Your task to perform on an android device: toggle javascript in the chrome app Image 0: 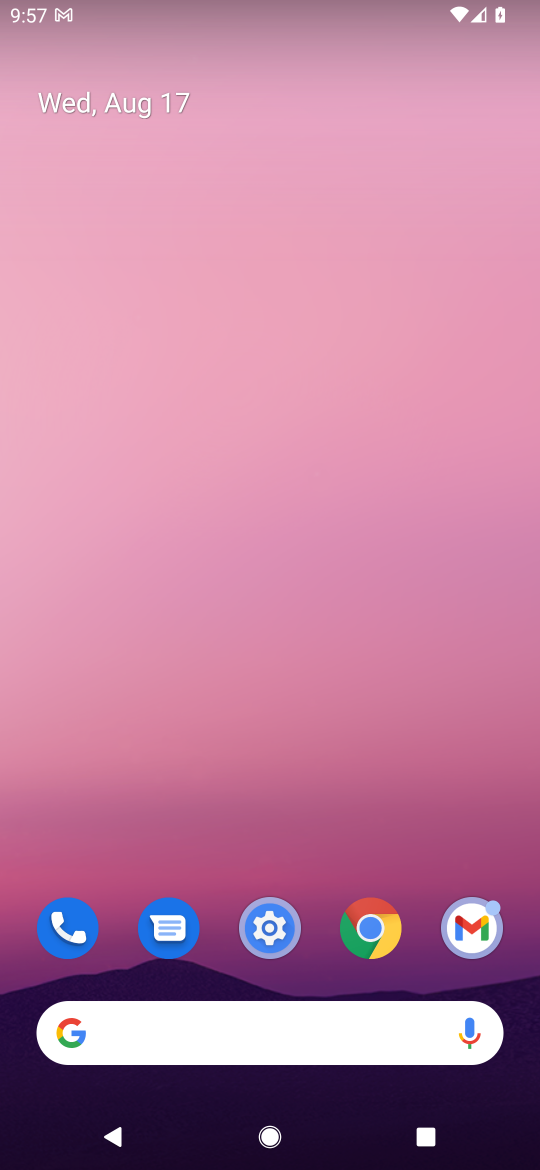
Step 0: click (371, 909)
Your task to perform on an android device: toggle javascript in the chrome app Image 1: 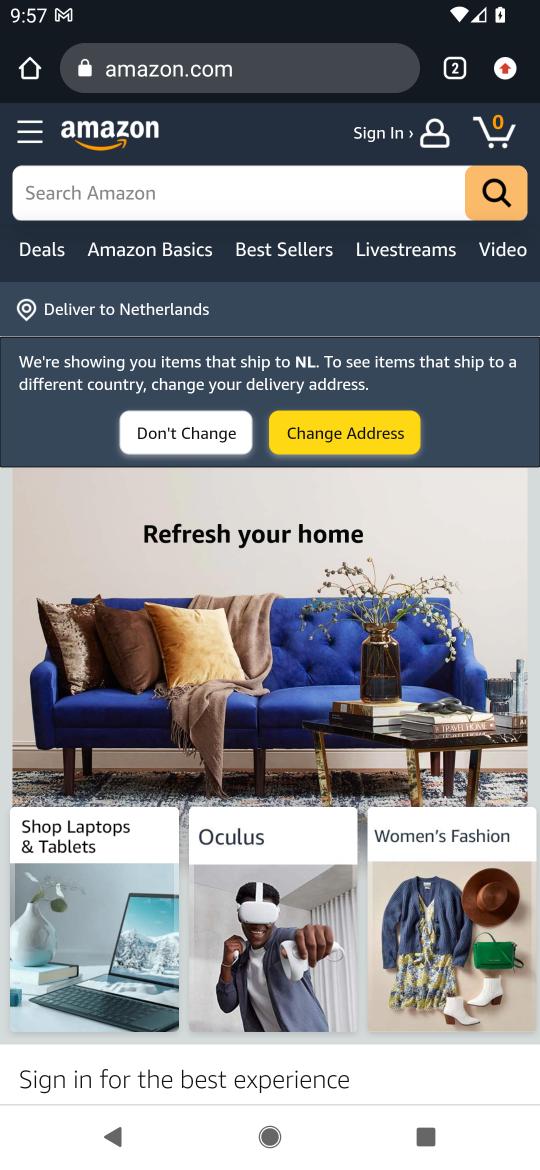
Step 1: click (511, 64)
Your task to perform on an android device: toggle javascript in the chrome app Image 2: 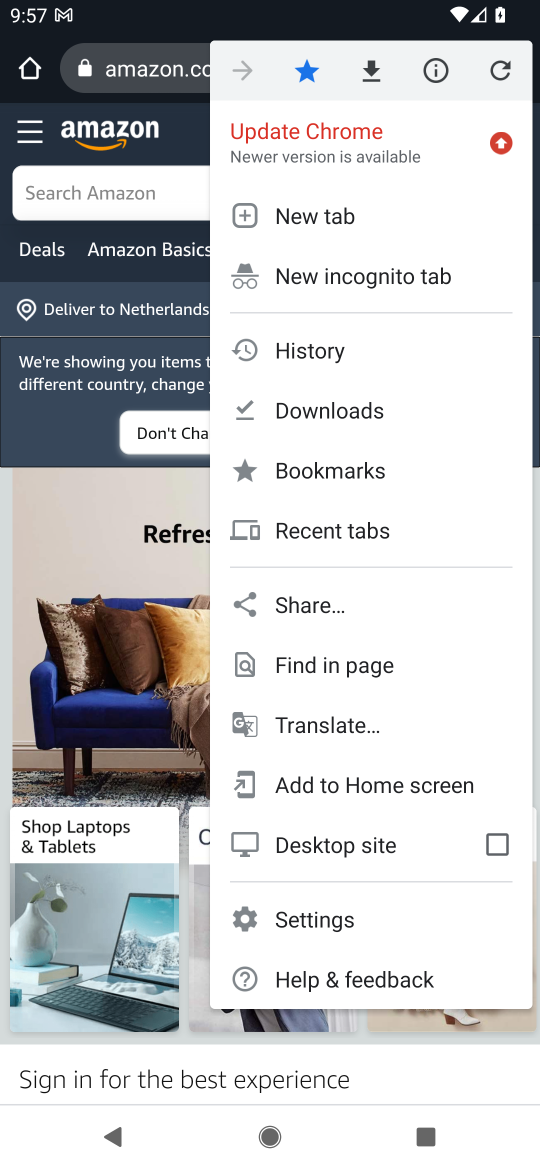
Step 2: click (307, 920)
Your task to perform on an android device: toggle javascript in the chrome app Image 3: 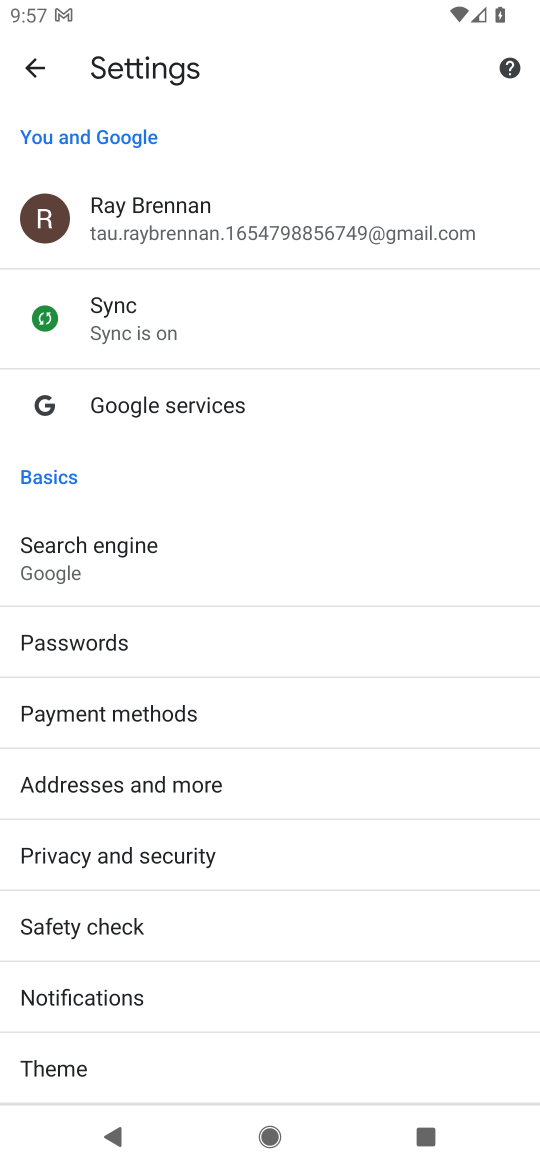
Step 3: drag from (253, 938) to (192, 518)
Your task to perform on an android device: toggle javascript in the chrome app Image 4: 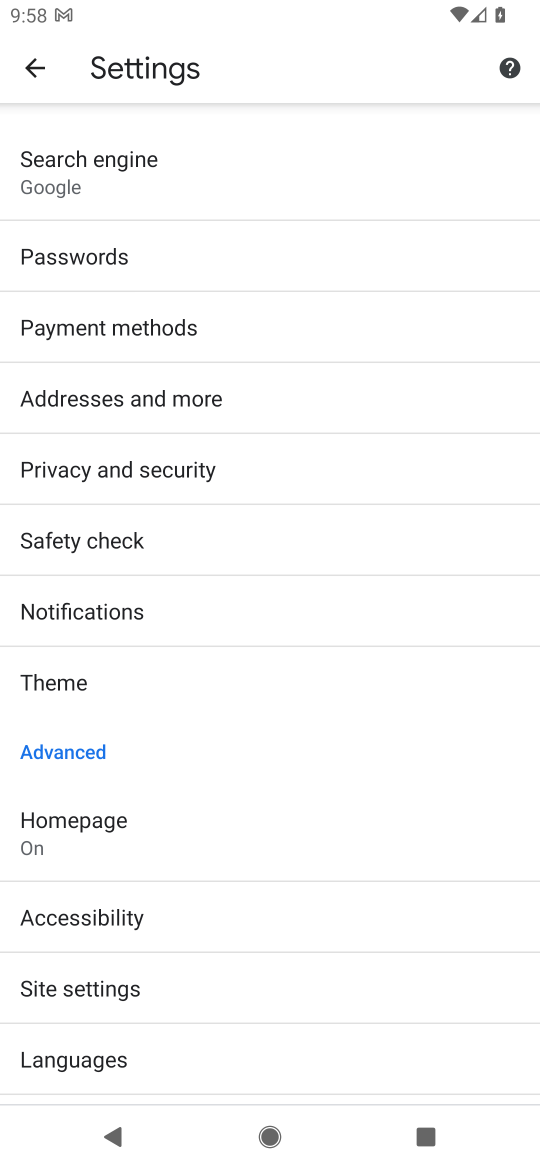
Step 4: click (125, 994)
Your task to perform on an android device: toggle javascript in the chrome app Image 5: 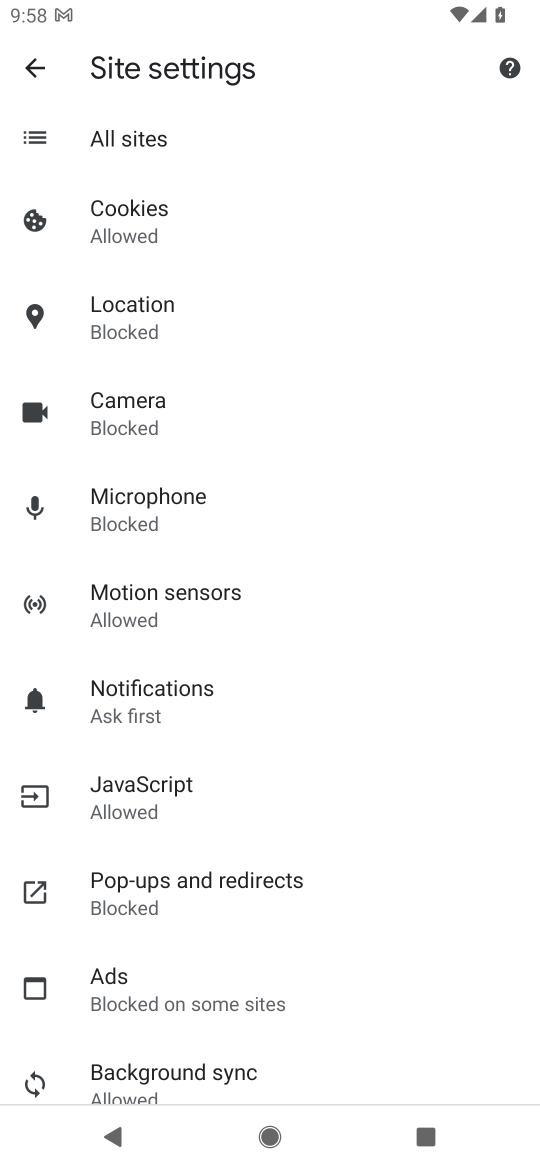
Step 5: click (201, 784)
Your task to perform on an android device: toggle javascript in the chrome app Image 6: 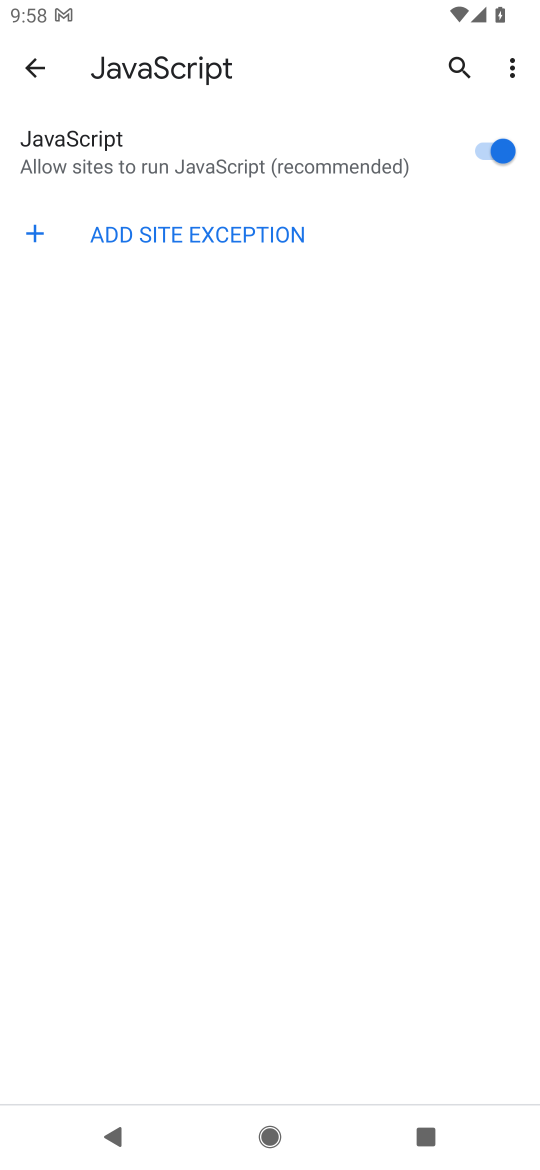
Step 6: click (484, 137)
Your task to perform on an android device: toggle javascript in the chrome app Image 7: 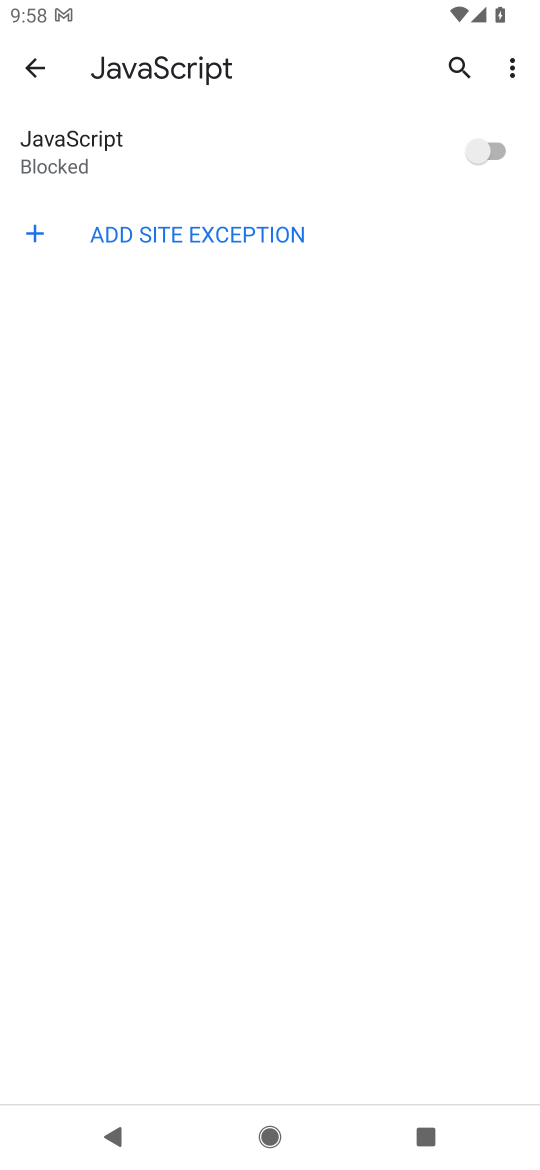
Step 7: task complete